Your task to perform on an android device: Go to location settings Image 0: 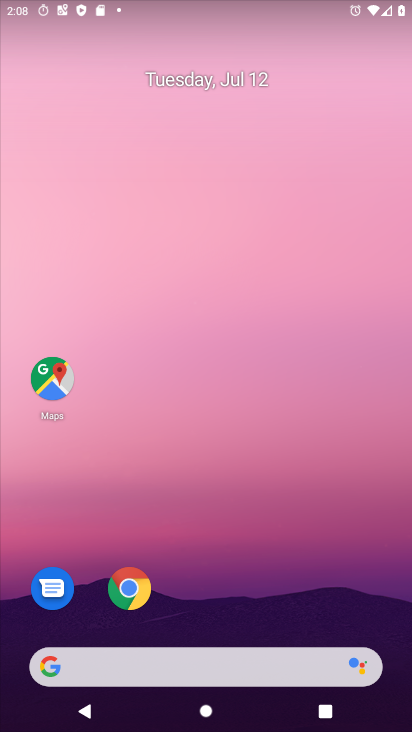
Step 0: click (246, 48)
Your task to perform on an android device: Go to location settings Image 1: 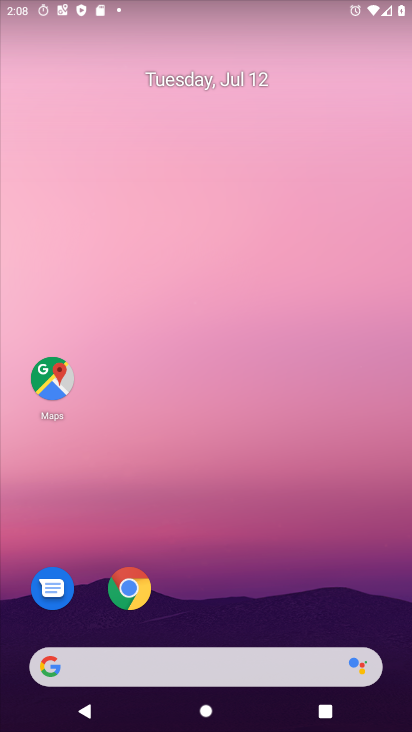
Step 1: drag from (177, 619) to (286, 149)
Your task to perform on an android device: Go to location settings Image 2: 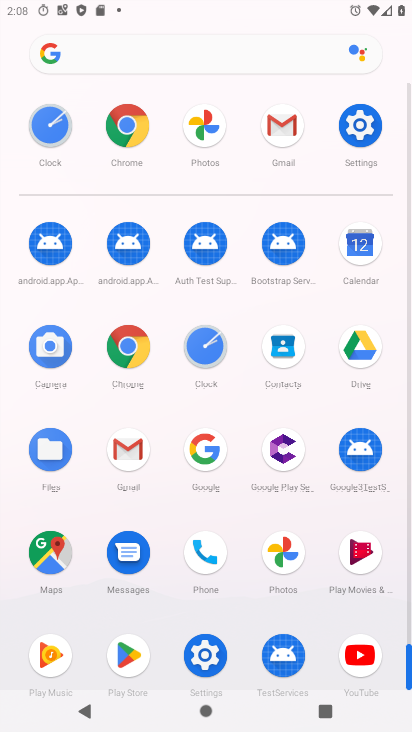
Step 2: click (352, 123)
Your task to perform on an android device: Go to location settings Image 3: 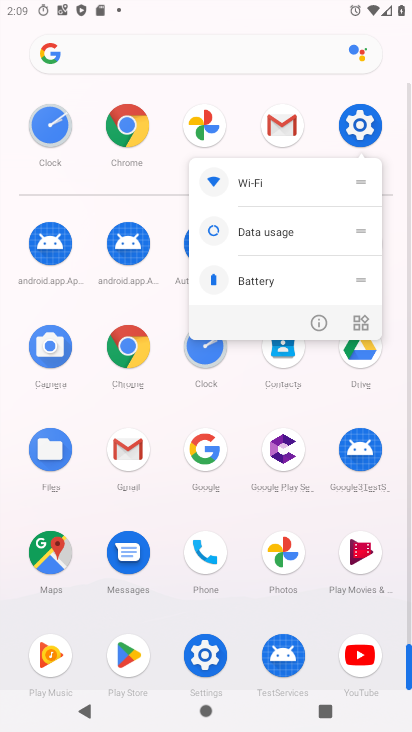
Step 3: click (296, 327)
Your task to perform on an android device: Go to location settings Image 4: 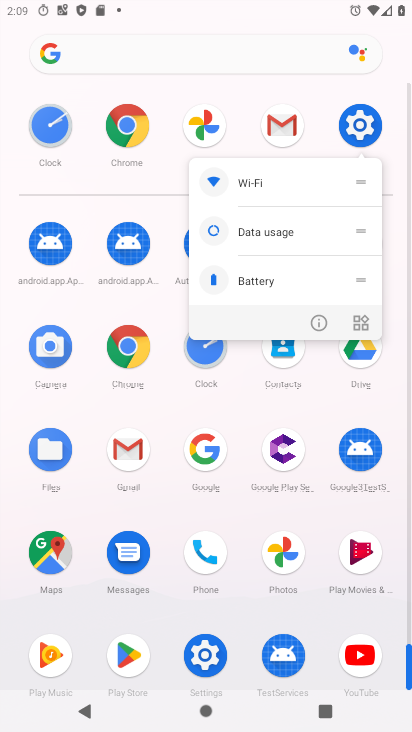
Step 4: click (296, 327)
Your task to perform on an android device: Go to location settings Image 5: 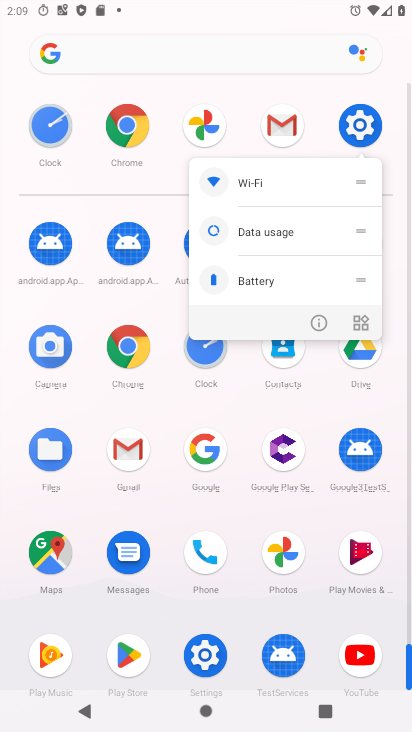
Step 5: click (296, 327)
Your task to perform on an android device: Go to location settings Image 6: 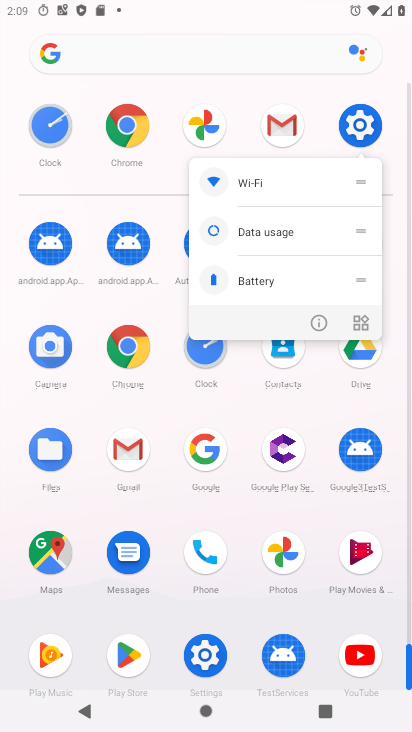
Step 6: click (315, 316)
Your task to perform on an android device: Go to location settings Image 7: 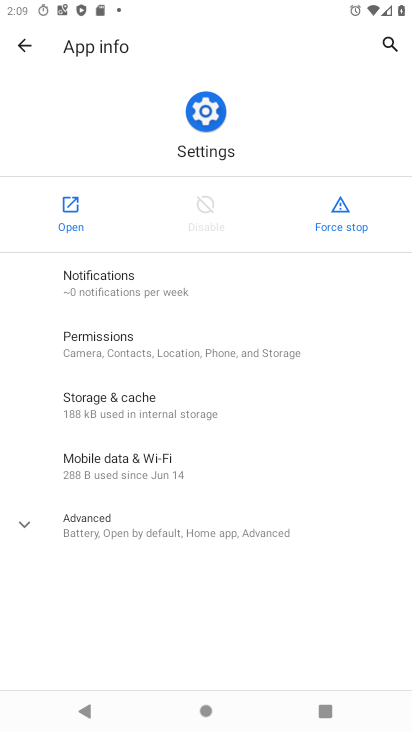
Step 7: click (50, 230)
Your task to perform on an android device: Go to location settings Image 8: 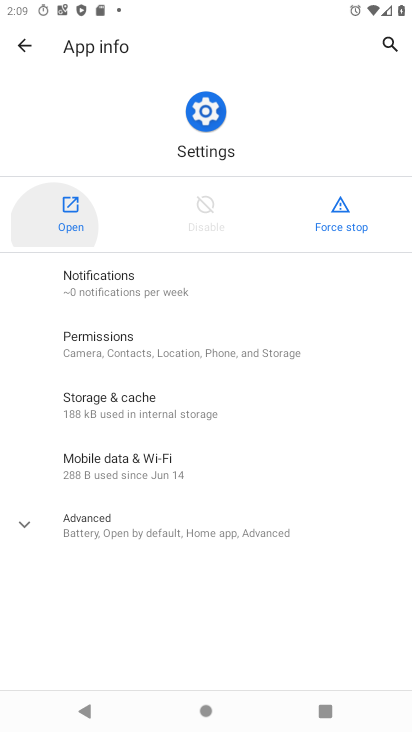
Step 8: click (79, 218)
Your task to perform on an android device: Go to location settings Image 9: 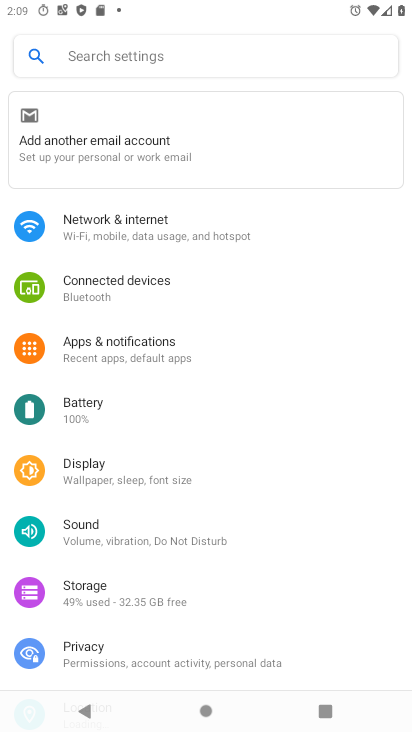
Step 9: drag from (172, 463) to (239, 237)
Your task to perform on an android device: Go to location settings Image 10: 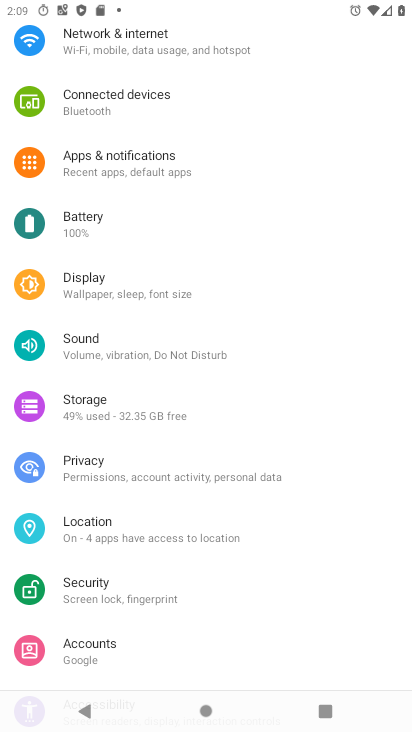
Step 10: click (108, 537)
Your task to perform on an android device: Go to location settings Image 11: 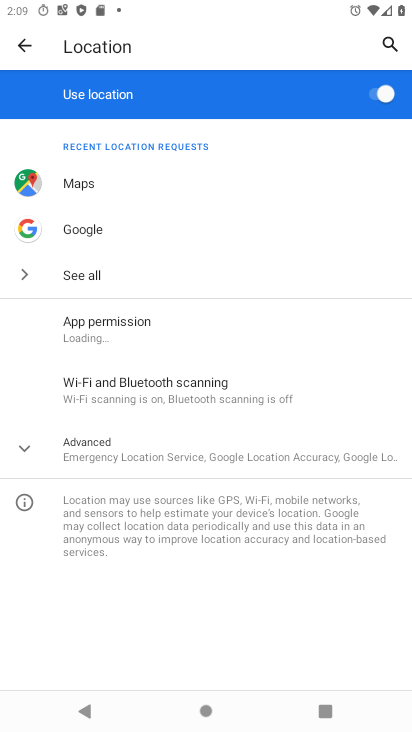
Step 11: drag from (169, 582) to (231, 307)
Your task to perform on an android device: Go to location settings Image 12: 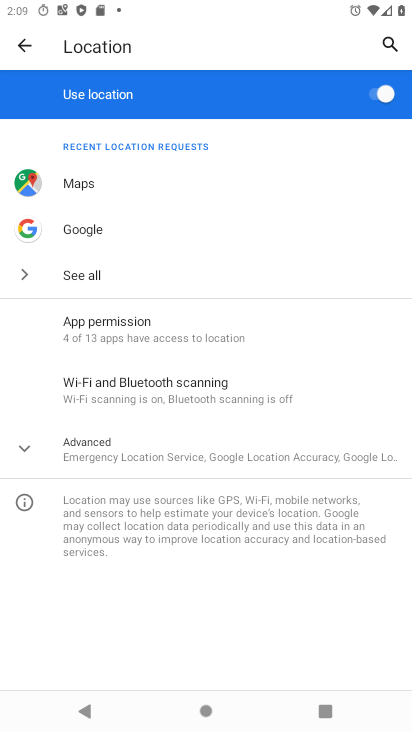
Step 12: click (116, 456)
Your task to perform on an android device: Go to location settings Image 13: 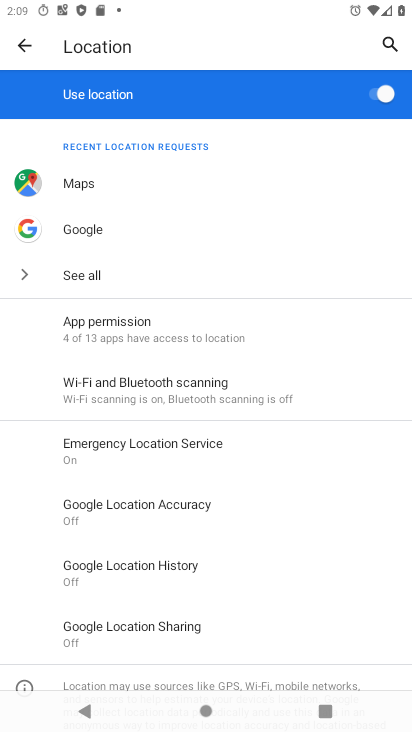
Step 13: task complete